Your task to perform on an android device: add a contact Image 0: 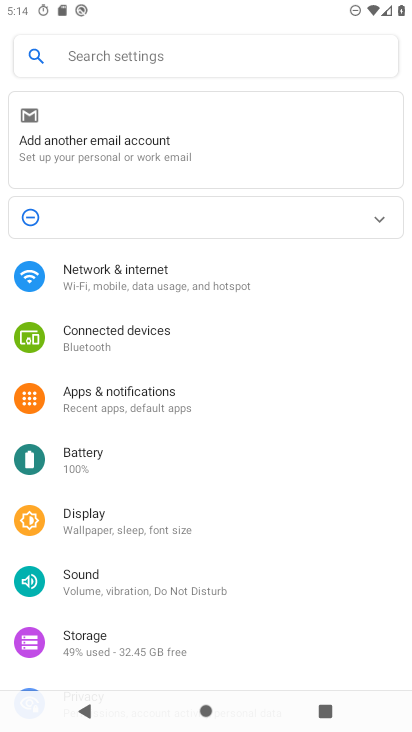
Step 0: press home button
Your task to perform on an android device: add a contact Image 1: 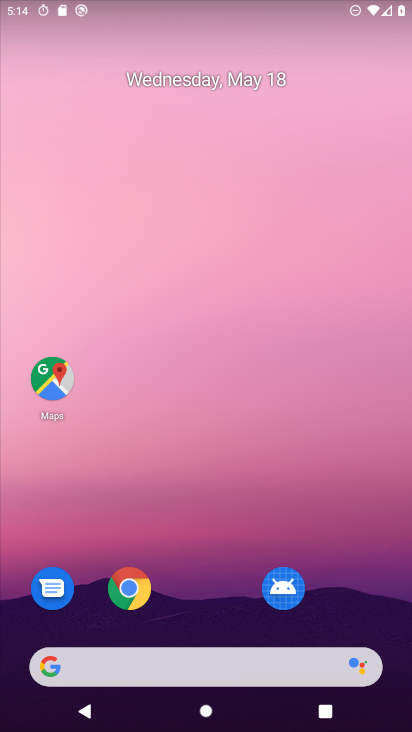
Step 1: drag from (318, 591) to (327, 66)
Your task to perform on an android device: add a contact Image 2: 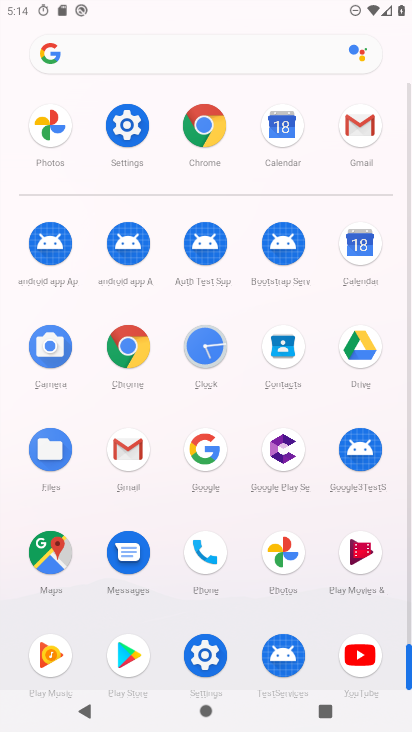
Step 2: click (287, 344)
Your task to perform on an android device: add a contact Image 3: 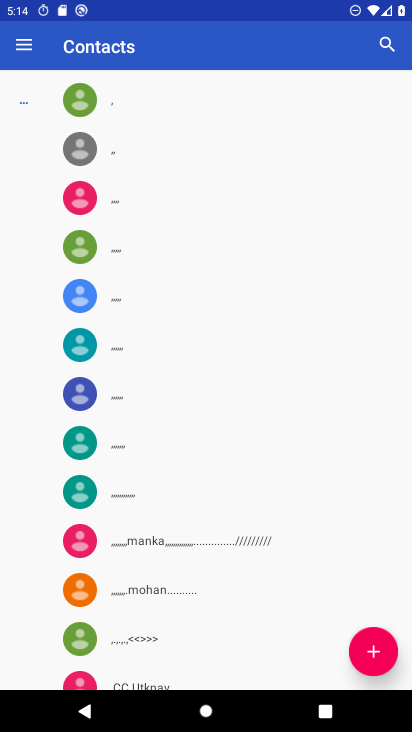
Step 3: click (366, 639)
Your task to perform on an android device: add a contact Image 4: 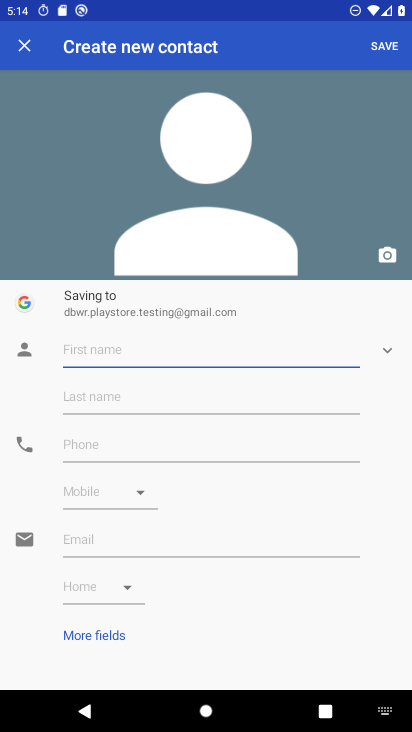
Step 4: type "jkg"
Your task to perform on an android device: add a contact Image 5: 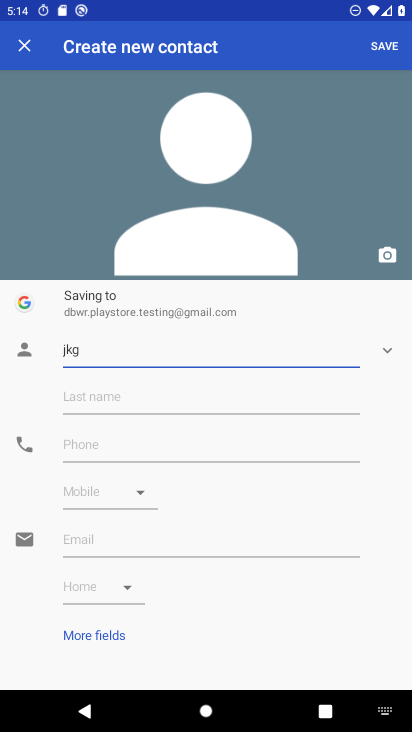
Step 5: click (225, 439)
Your task to perform on an android device: add a contact Image 6: 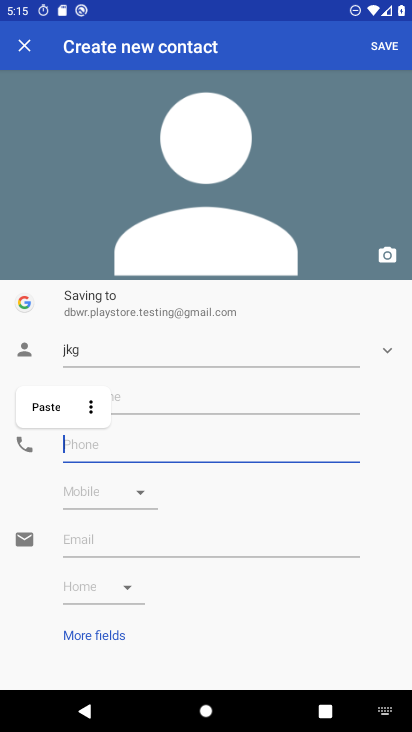
Step 6: type "124"
Your task to perform on an android device: add a contact Image 7: 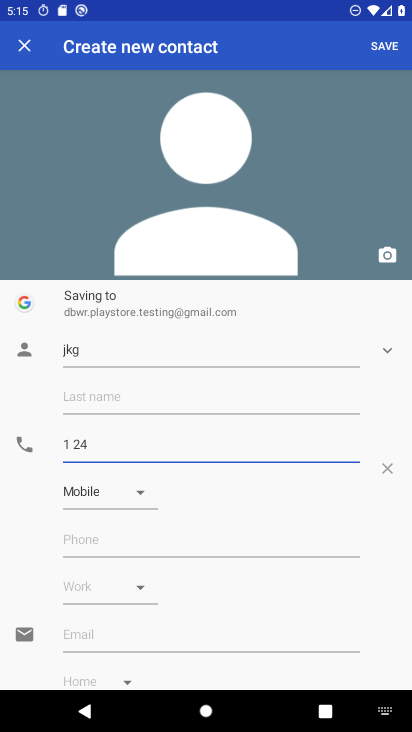
Step 7: click (396, 45)
Your task to perform on an android device: add a contact Image 8: 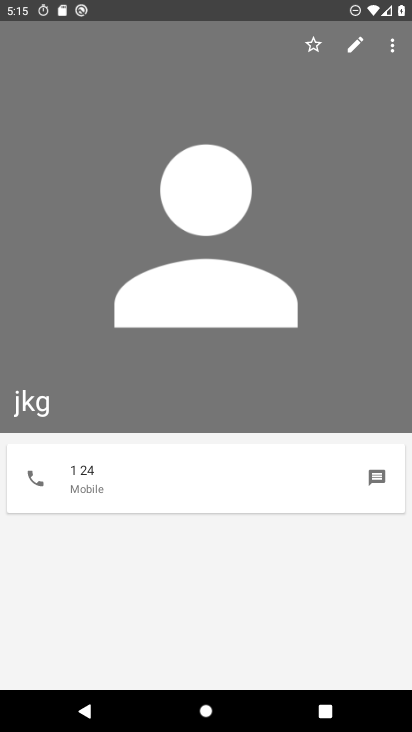
Step 8: task complete